Your task to perform on an android device: Show me productivity apps on the Play Store Image 0: 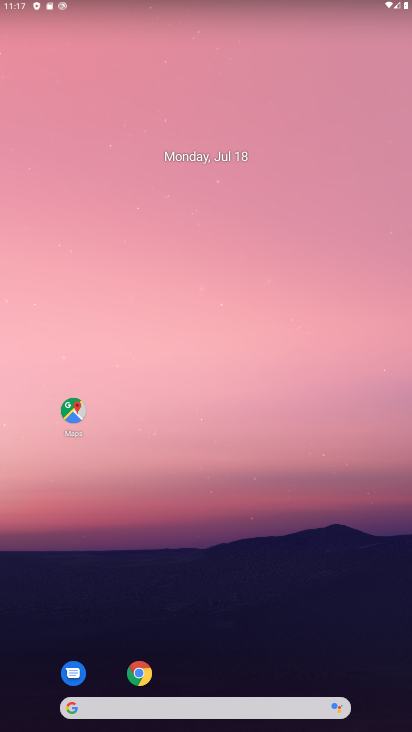
Step 0: press home button
Your task to perform on an android device: Show me productivity apps on the Play Store Image 1: 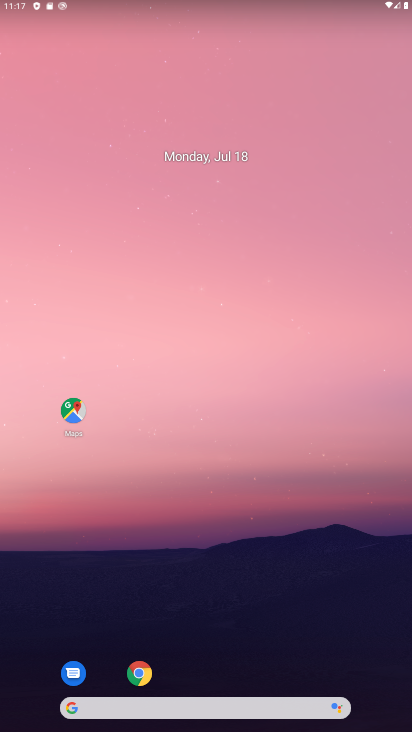
Step 1: drag from (215, 676) to (261, 26)
Your task to perform on an android device: Show me productivity apps on the Play Store Image 2: 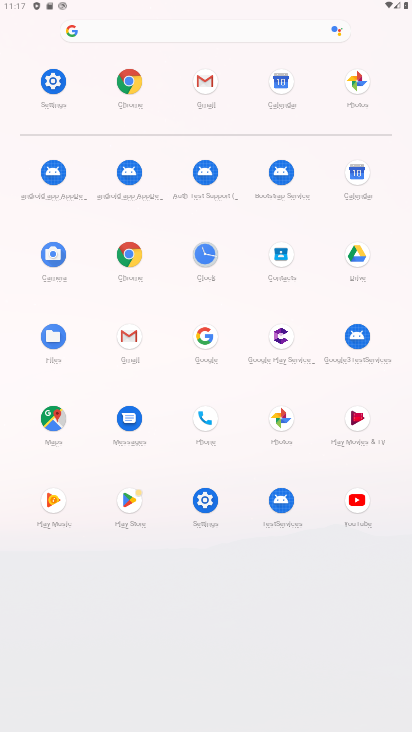
Step 2: click (127, 492)
Your task to perform on an android device: Show me productivity apps on the Play Store Image 3: 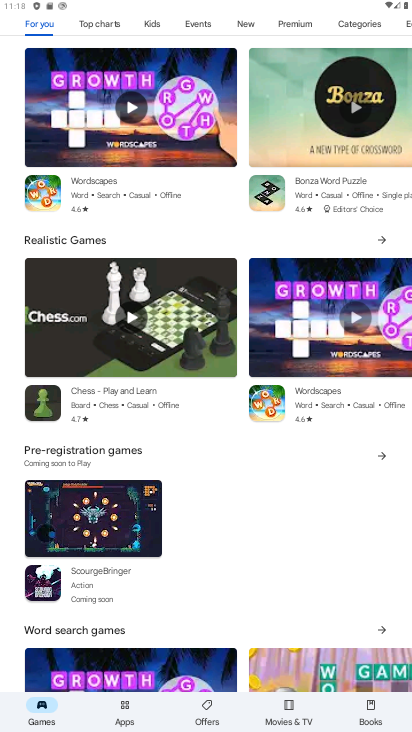
Step 3: click (119, 704)
Your task to perform on an android device: Show me productivity apps on the Play Store Image 4: 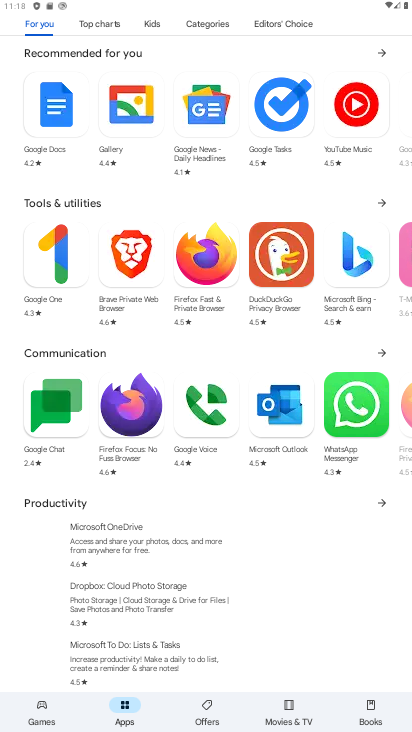
Step 4: click (206, 21)
Your task to perform on an android device: Show me productivity apps on the Play Store Image 5: 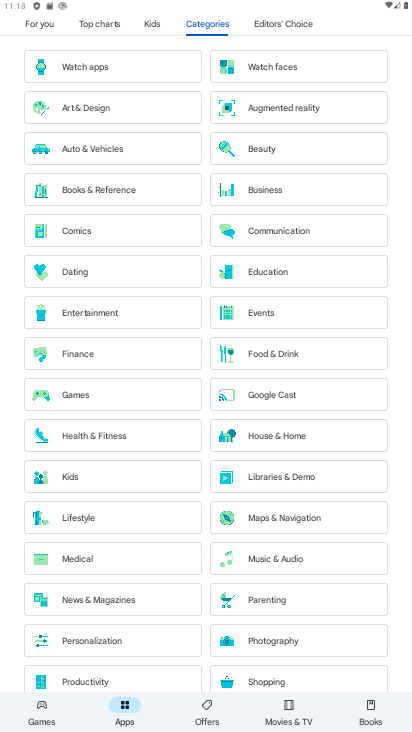
Step 5: click (146, 679)
Your task to perform on an android device: Show me productivity apps on the Play Store Image 6: 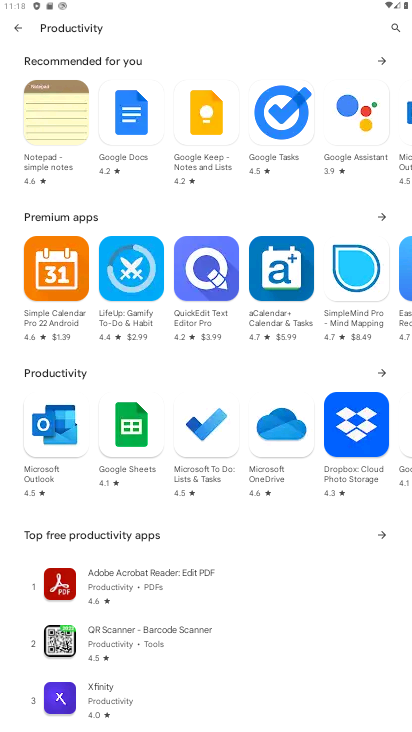
Step 6: click (382, 373)
Your task to perform on an android device: Show me productivity apps on the Play Store Image 7: 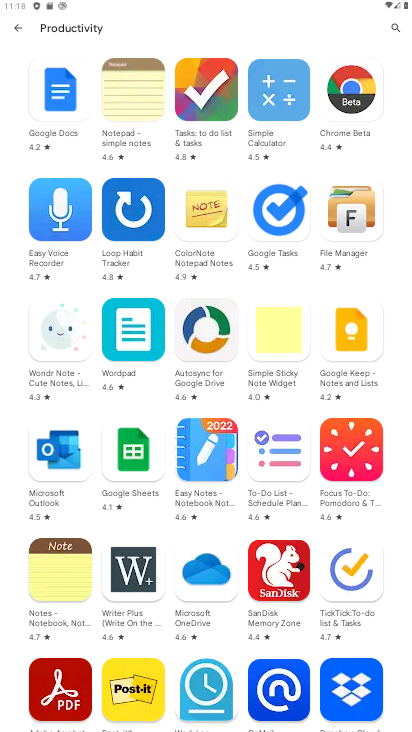
Step 7: task complete